Your task to perform on an android device: Open Google Maps and go to "Timeline" Image 0: 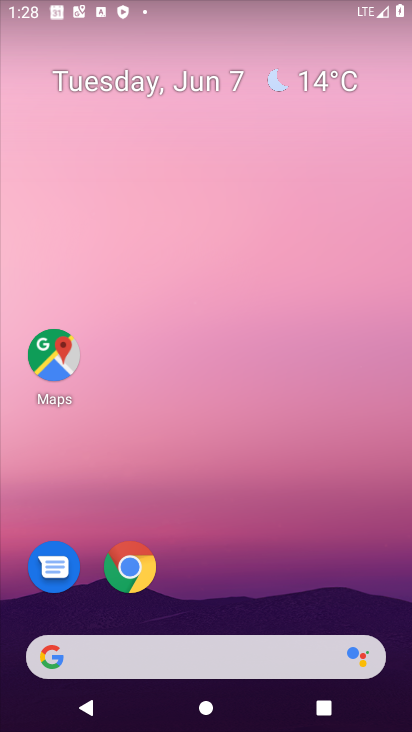
Step 0: drag from (206, 617) to (293, 99)
Your task to perform on an android device: Open Google Maps and go to "Timeline" Image 1: 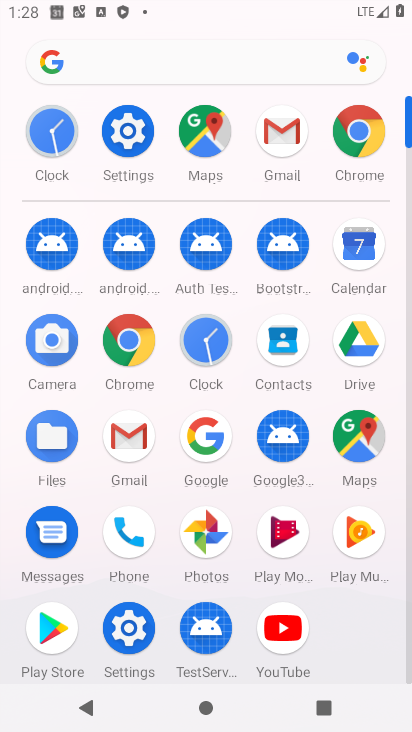
Step 1: click (374, 433)
Your task to perform on an android device: Open Google Maps and go to "Timeline" Image 2: 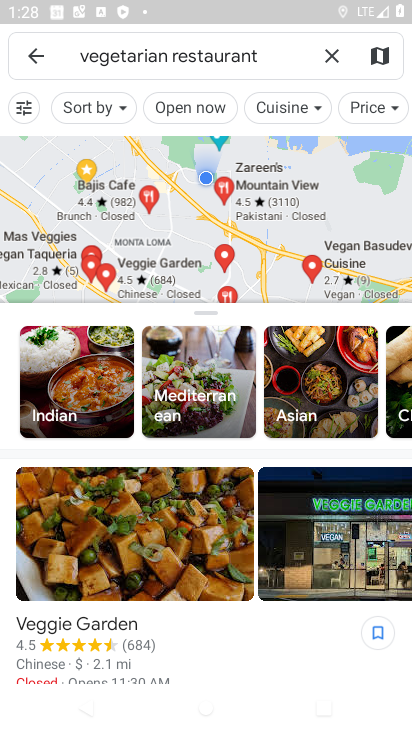
Step 2: press back button
Your task to perform on an android device: Open Google Maps and go to "Timeline" Image 3: 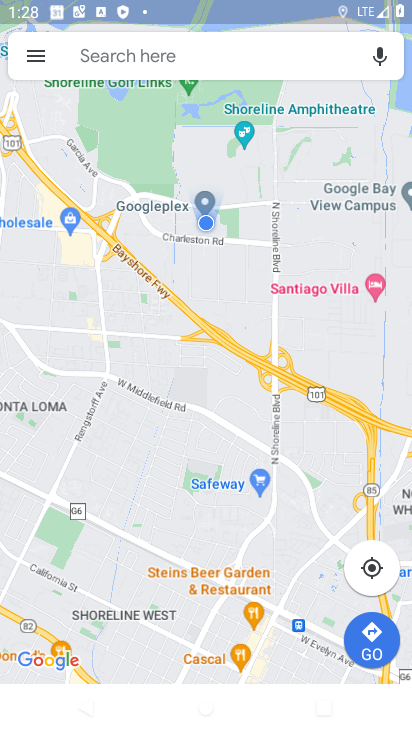
Step 3: click (47, 50)
Your task to perform on an android device: Open Google Maps and go to "Timeline" Image 4: 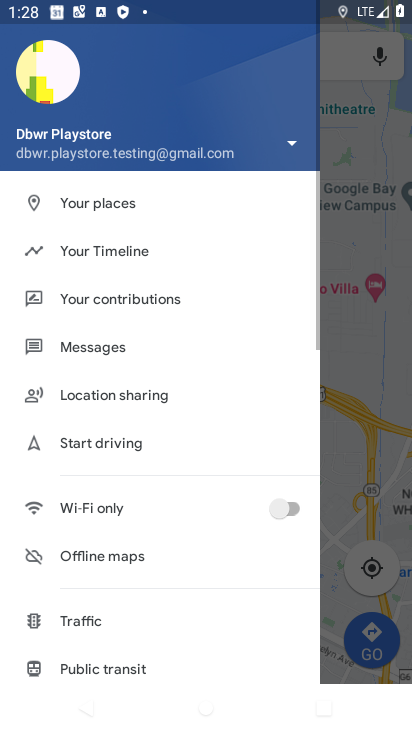
Step 4: click (121, 248)
Your task to perform on an android device: Open Google Maps and go to "Timeline" Image 5: 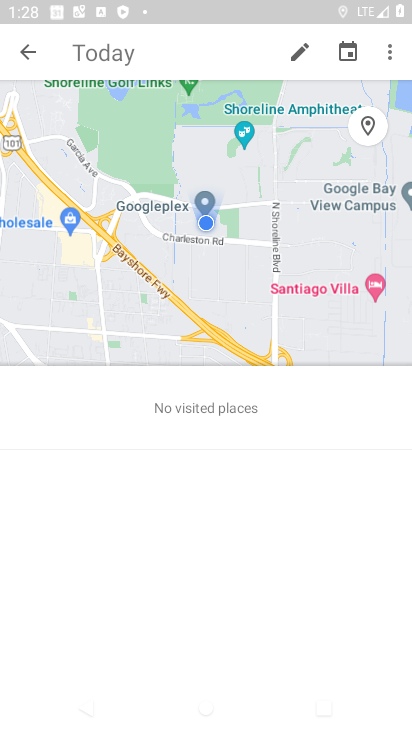
Step 5: task complete